Your task to perform on an android device: turn off notifications in google photos Image 0: 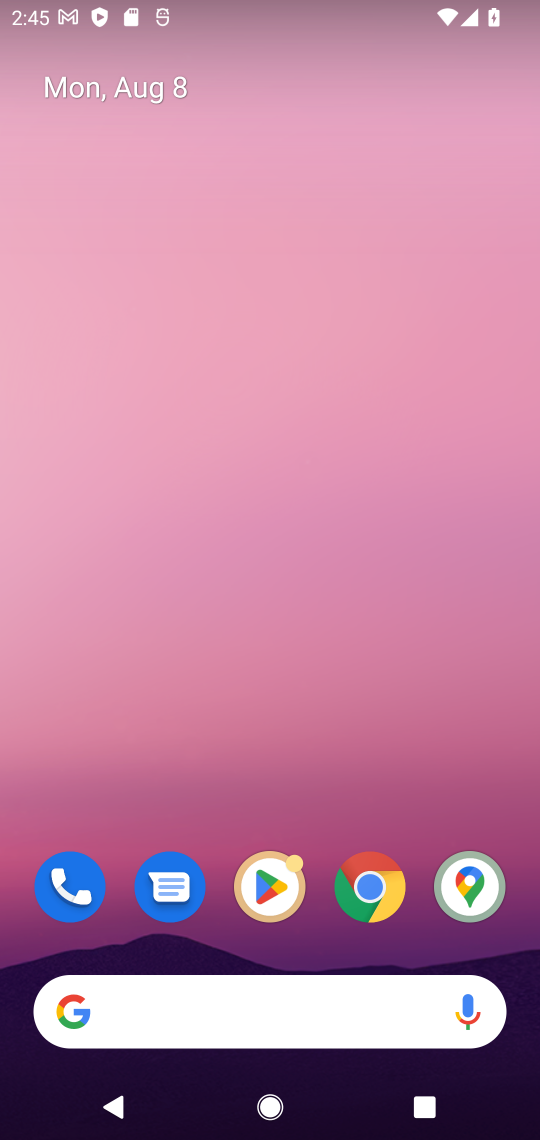
Step 0: drag from (242, 944) to (7, 424)
Your task to perform on an android device: turn off notifications in google photos Image 1: 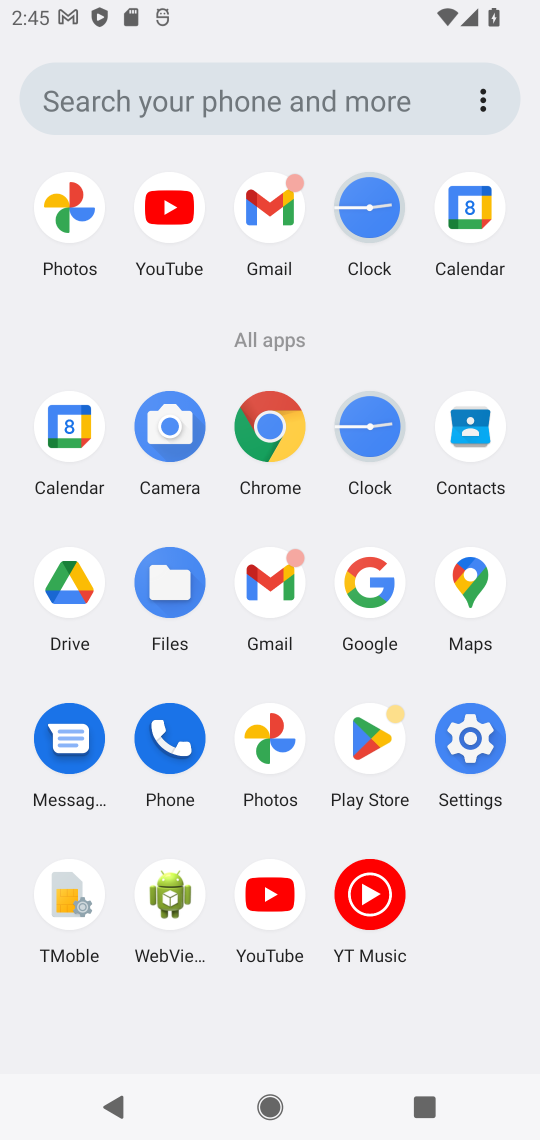
Step 1: click (257, 565)
Your task to perform on an android device: turn off notifications in google photos Image 2: 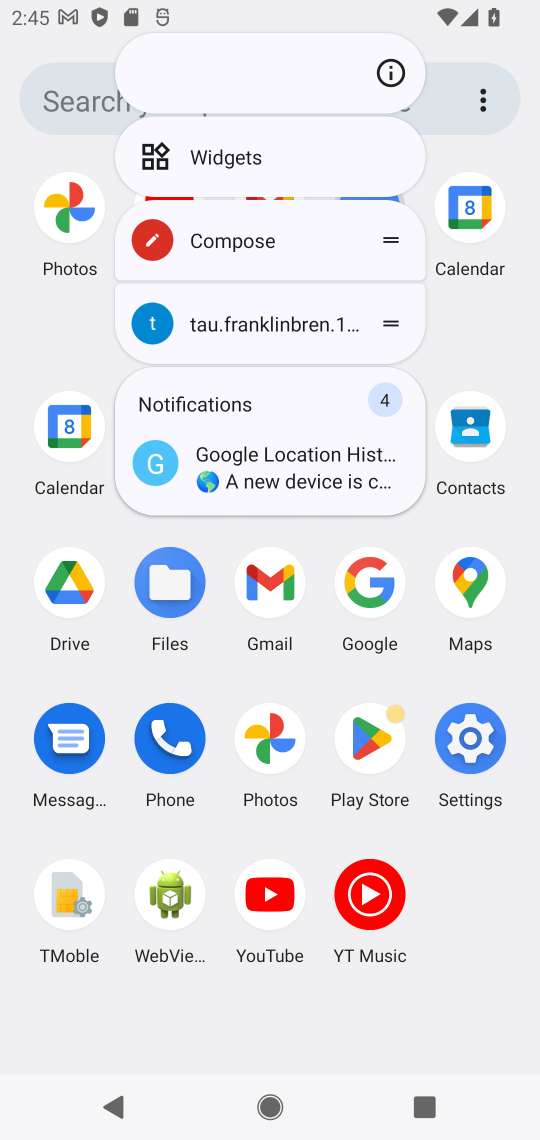
Step 2: click (224, 719)
Your task to perform on an android device: turn off notifications in google photos Image 3: 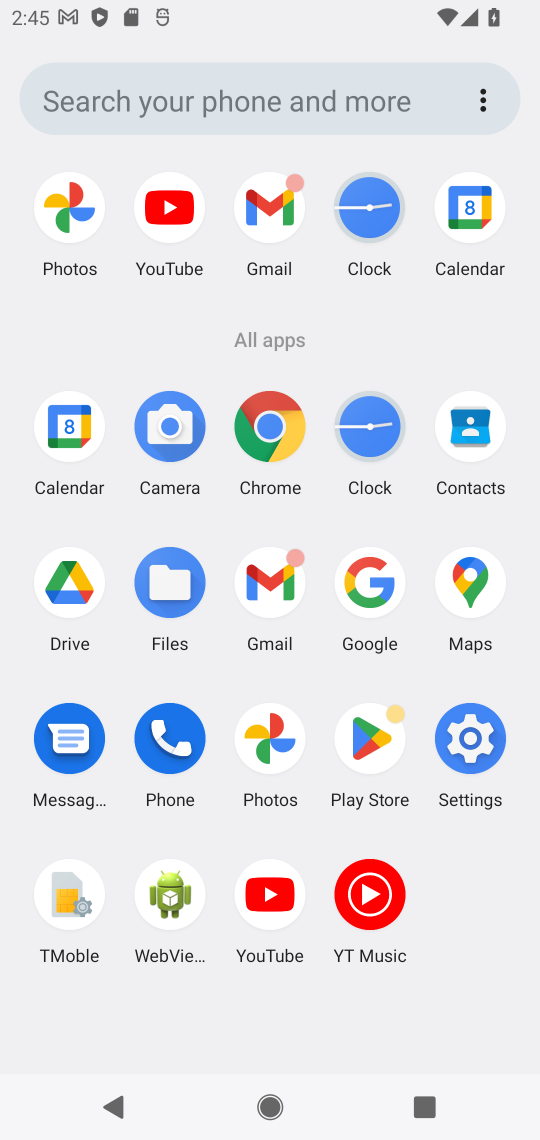
Step 3: click (269, 721)
Your task to perform on an android device: turn off notifications in google photos Image 4: 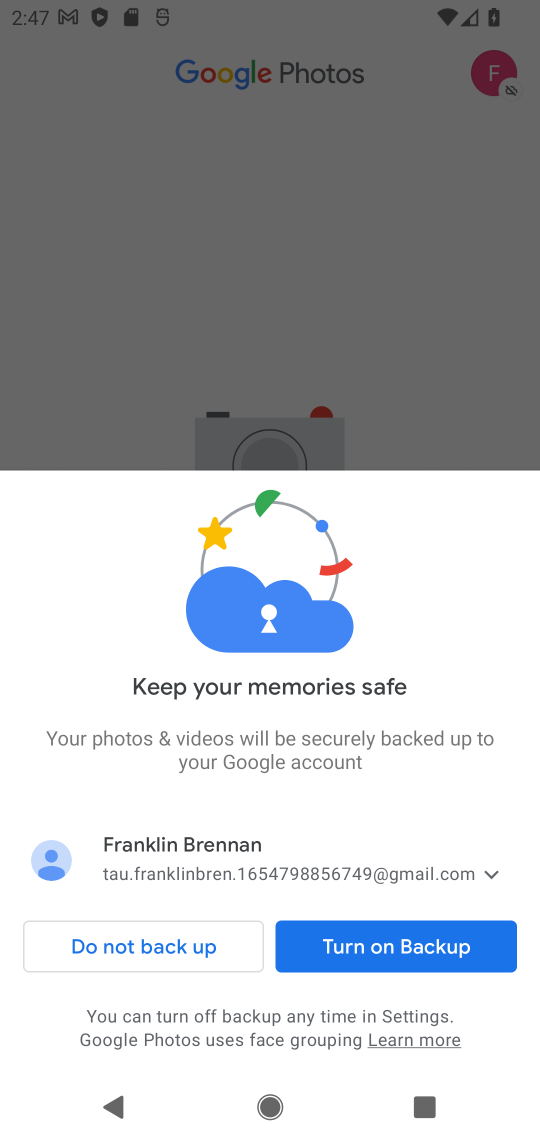
Step 4: click (382, 959)
Your task to perform on an android device: turn off notifications in google photos Image 5: 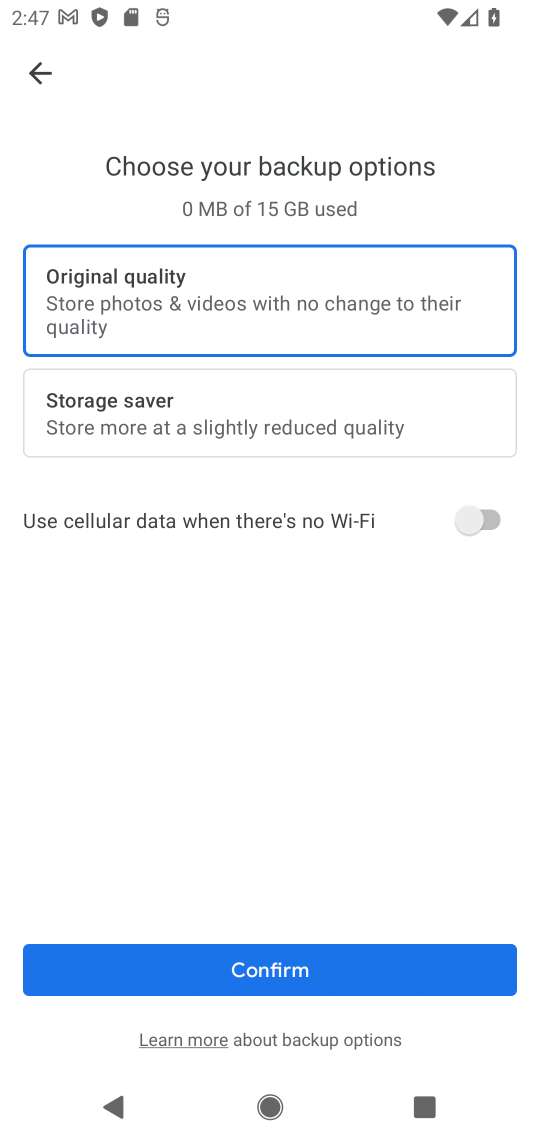
Step 5: click (296, 966)
Your task to perform on an android device: turn off notifications in google photos Image 6: 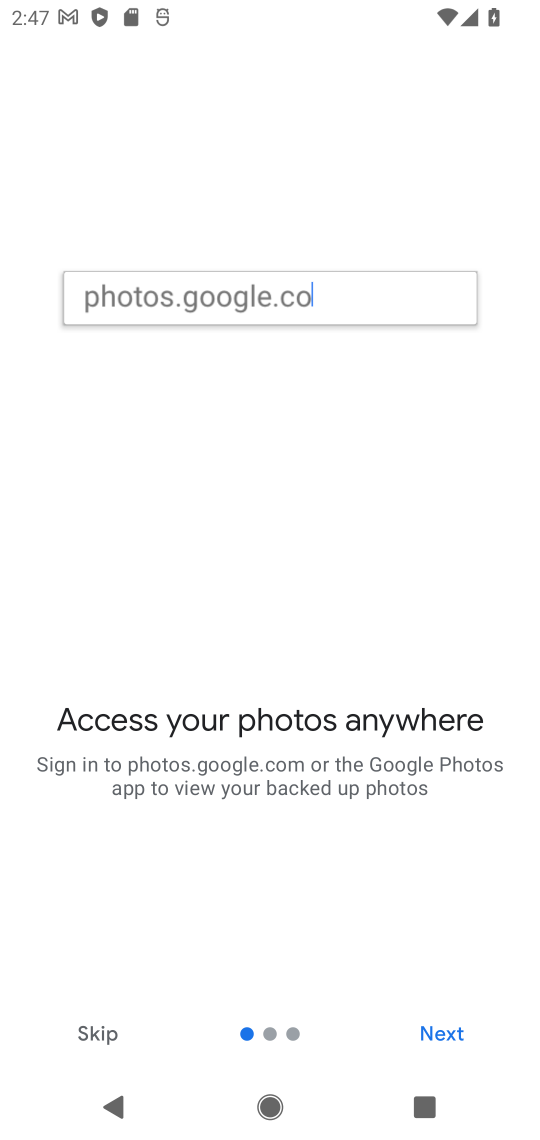
Step 6: click (424, 1028)
Your task to perform on an android device: turn off notifications in google photos Image 7: 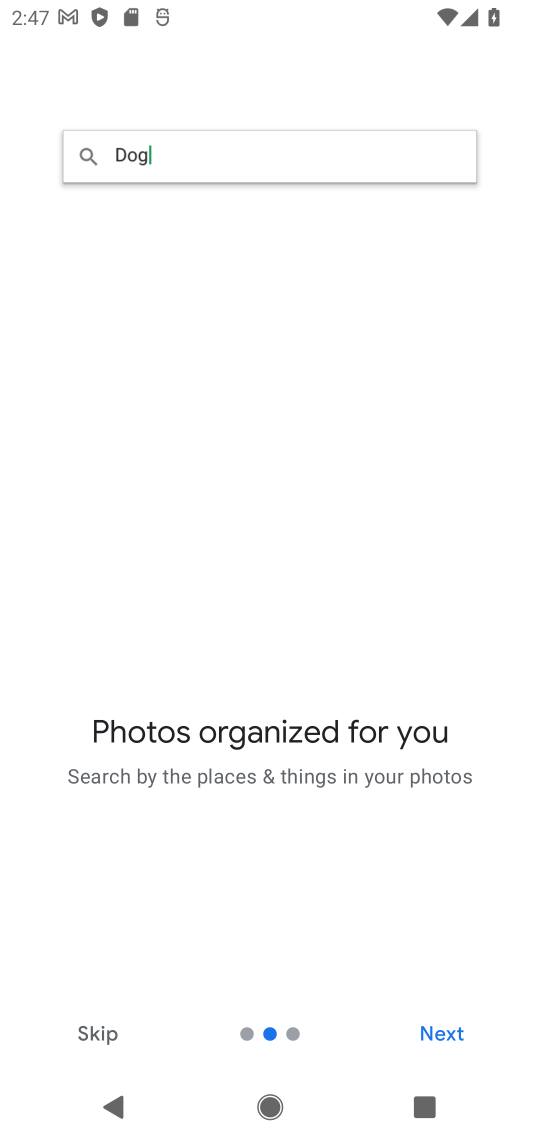
Step 7: click (425, 1032)
Your task to perform on an android device: turn off notifications in google photos Image 8: 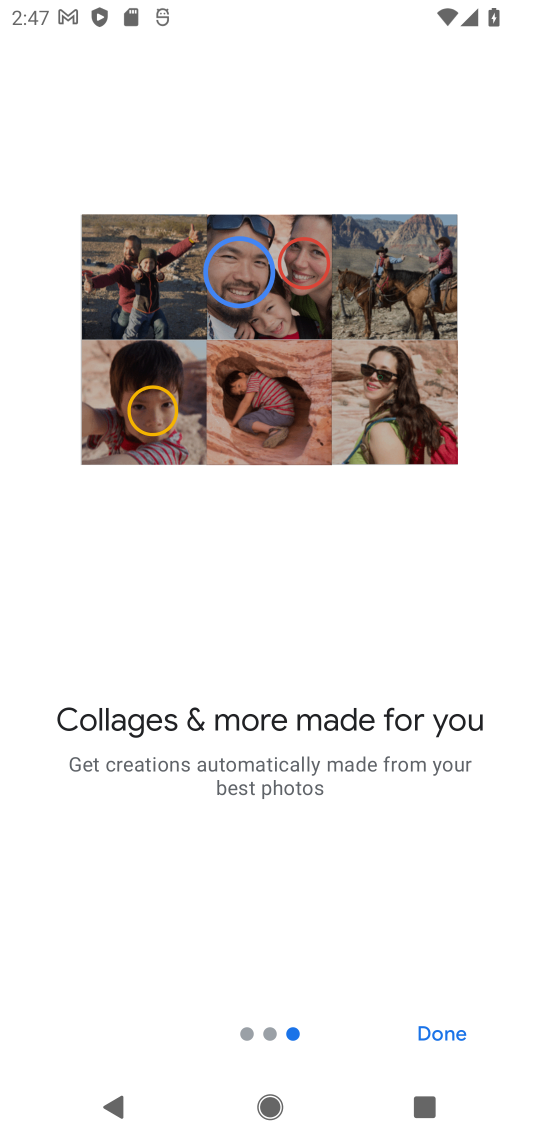
Step 8: click (425, 1032)
Your task to perform on an android device: turn off notifications in google photos Image 9: 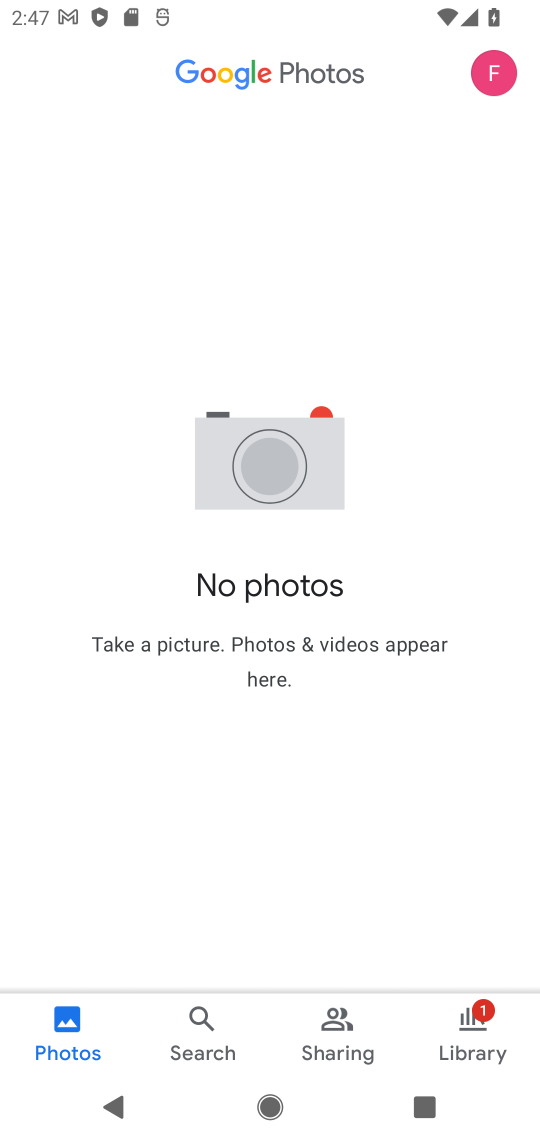
Step 9: click (494, 80)
Your task to perform on an android device: turn off notifications in google photos Image 10: 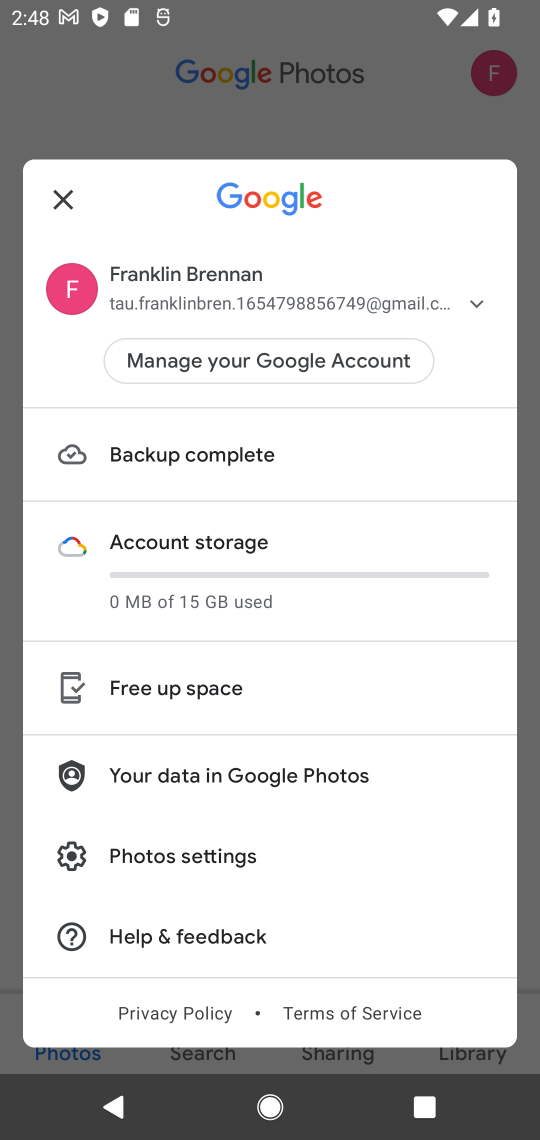
Step 10: click (148, 860)
Your task to perform on an android device: turn off notifications in google photos Image 11: 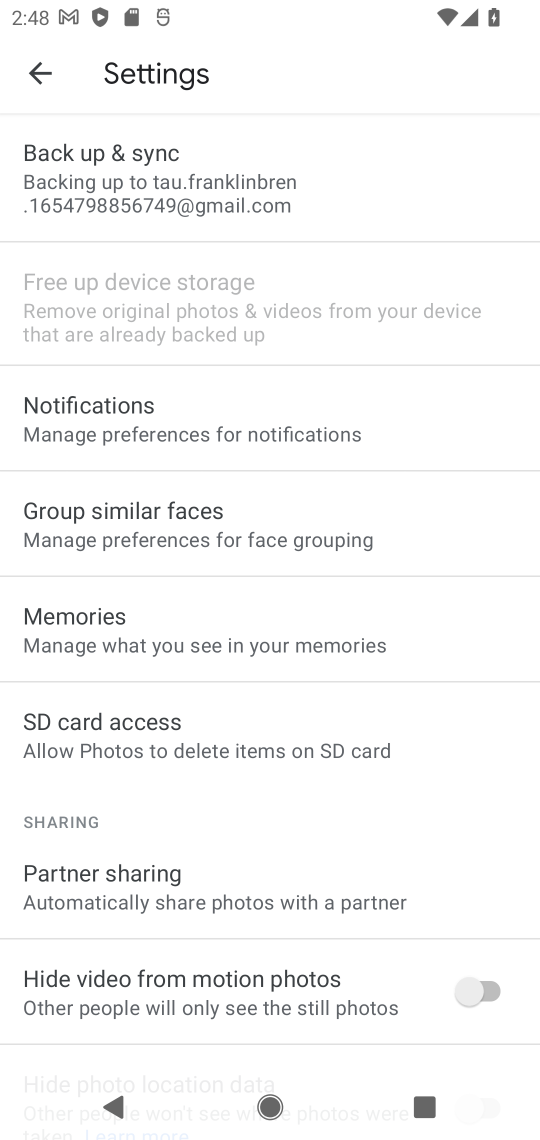
Step 11: click (83, 393)
Your task to perform on an android device: turn off notifications in google photos Image 12: 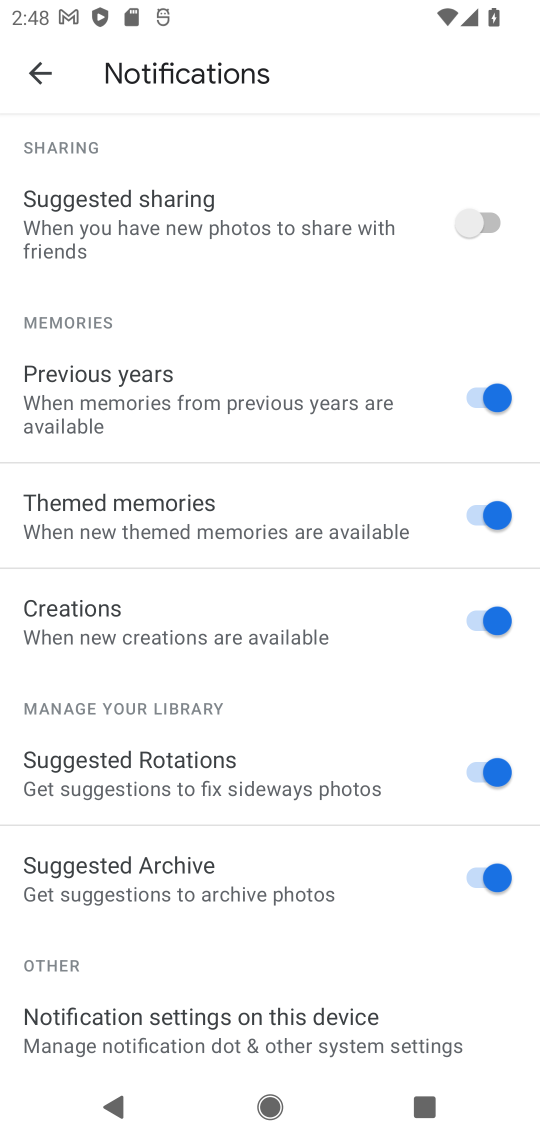
Step 12: drag from (147, 1002) to (196, 614)
Your task to perform on an android device: turn off notifications in google photos Image 13: 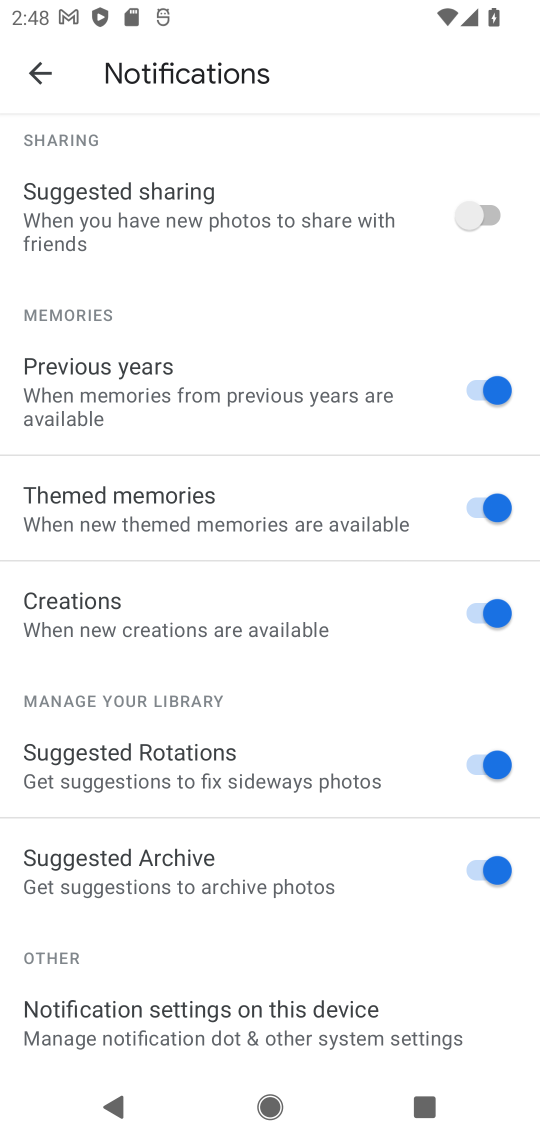
Step 13: click (201, 1024)
Your task to perform on an android device: turn off notifications in google photos Image 14: 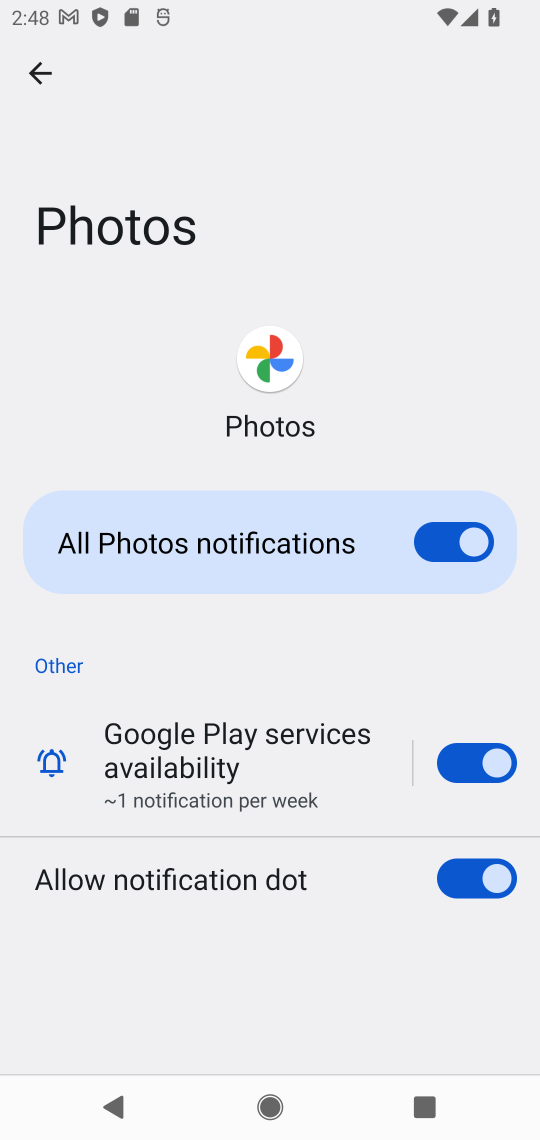
Step 14: click (502, 544)
Your task to perform on an android device: turn off notifications in google photos Image 15: 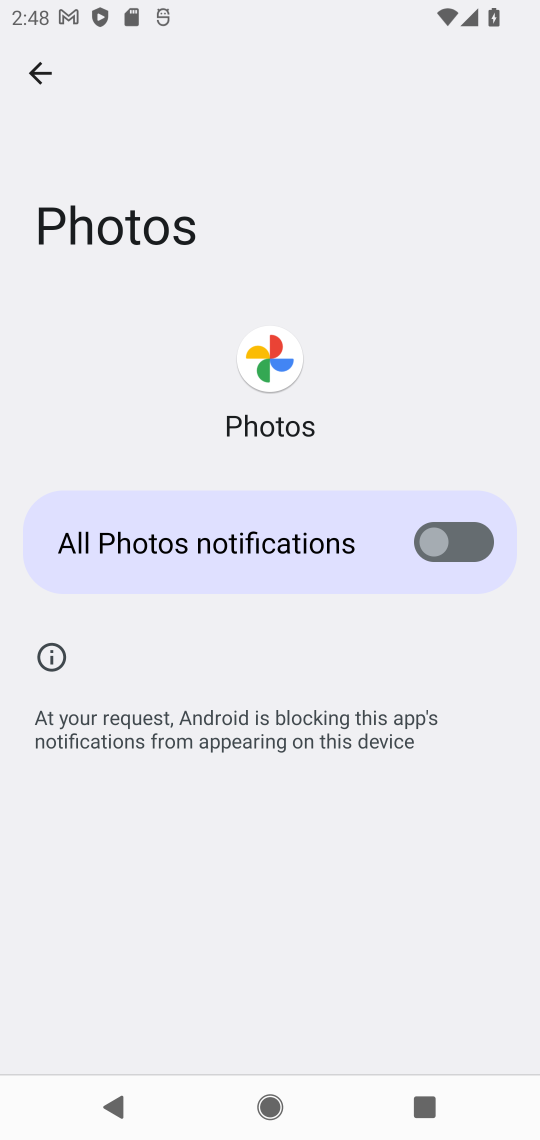
Step 15: task complete